Your task to perform on an android device: What is the news today? Image 0: 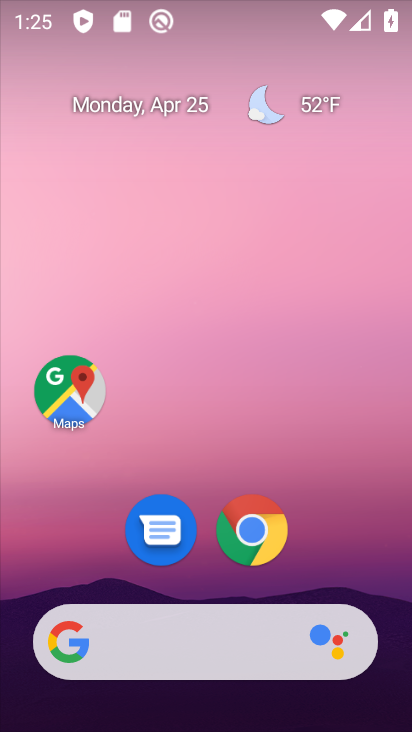
Step 0: drag from (393, 559) to (405, 154)
Your task to perform on an android device: What is the news today? Image 1: 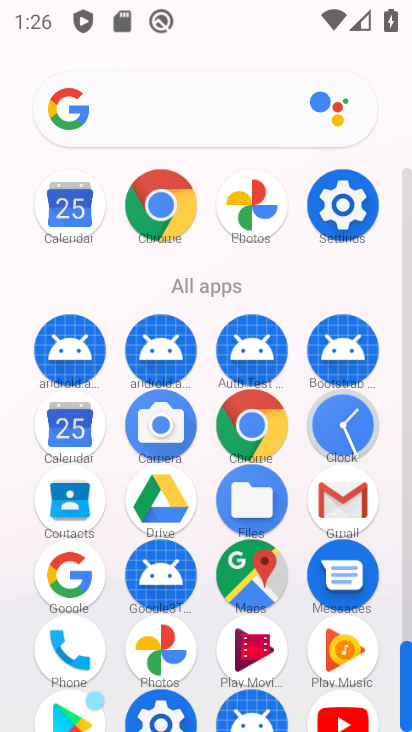
Step 1: click (186, 210)
Your task to perform on an android device: What is the news today? Image 2: 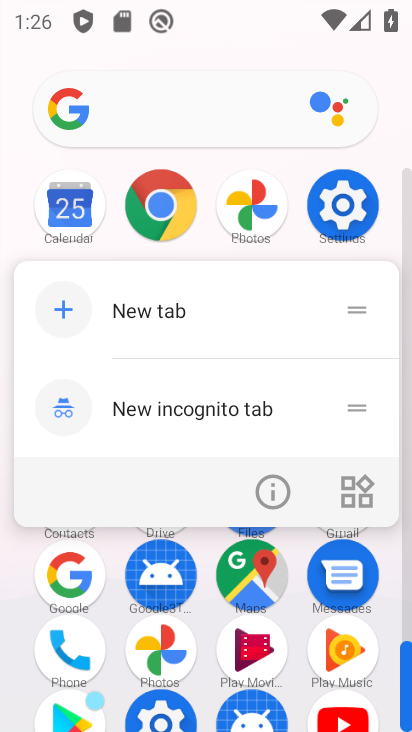
Step 2: click (174, 201)
Your task to perform on an android device: What is the news today? Image 3: 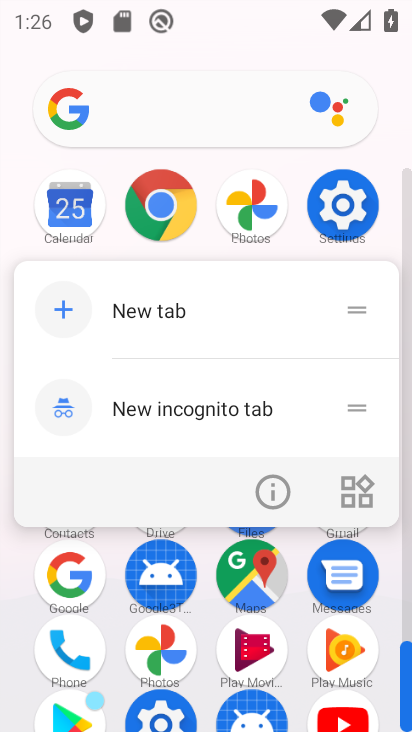
Step 3: click (160, 218)
Your task to perform on an android device: What is the news today? Image 4: 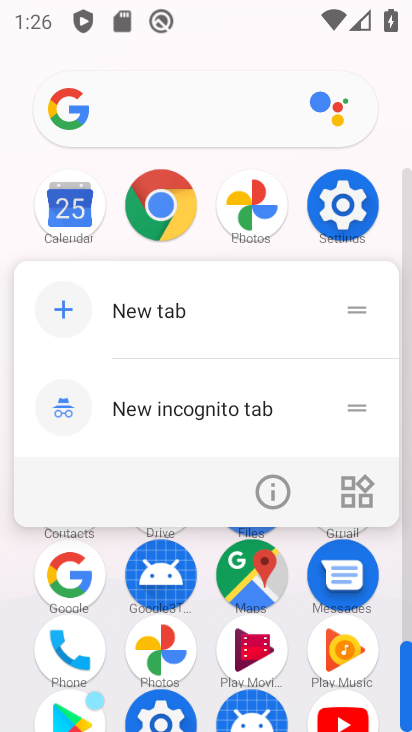
Step 4: click (164, 223)
Your task to perform on an android device: What is the news today? Image 5: 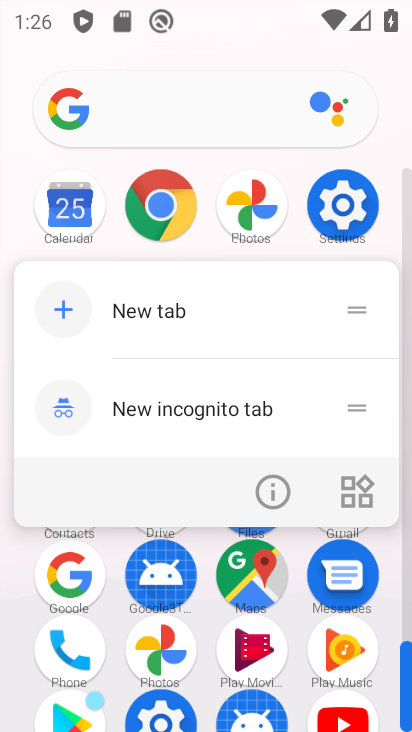
Step 5: click (187, 217)
Your task to perform on an android device: What is the news today? Image 6: 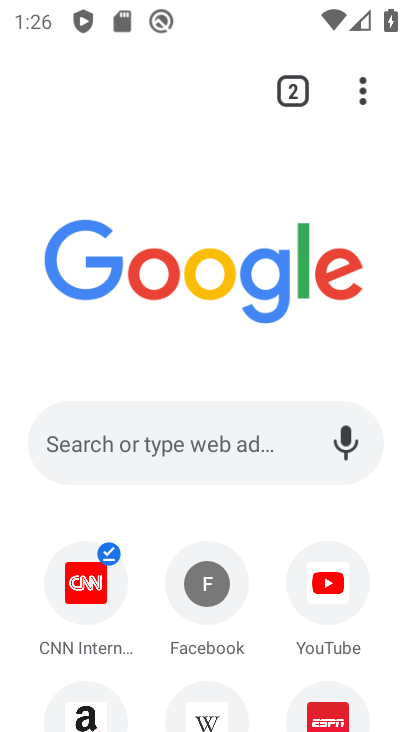
Step 6: click (209, 436)
Your task to perform on an android device: What is the news today? Image 7: 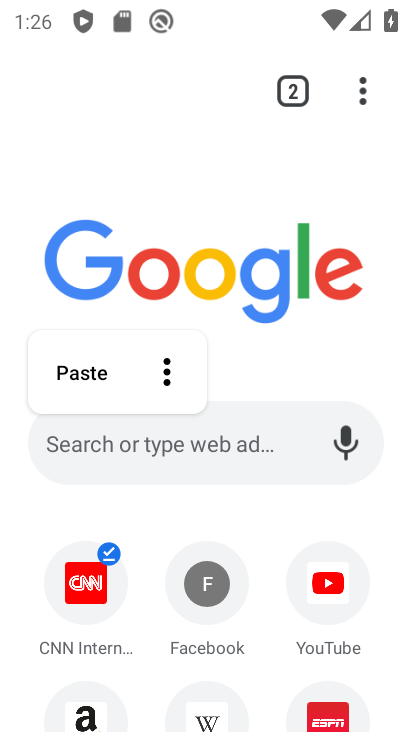
Step 7: type "the news today"
Your task to perform on an android device: What is the news today? Image 8: 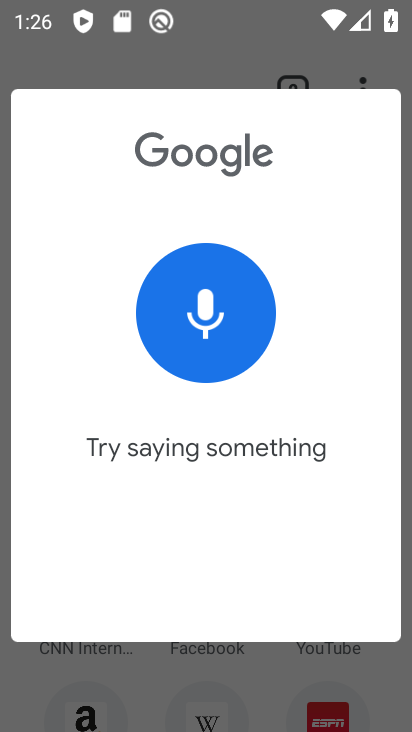
Step 8: click (368, 658)
Your task to perform on an android device: What is the news today? Image 9: 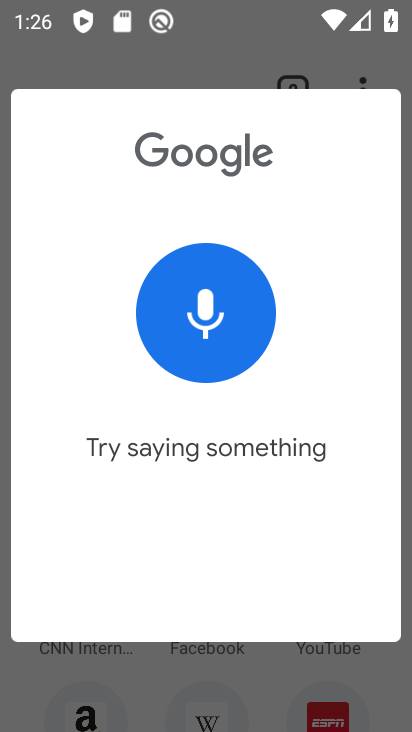
Step 9: press home button
Your task to perform on an android device: What is the news today? Image 10: 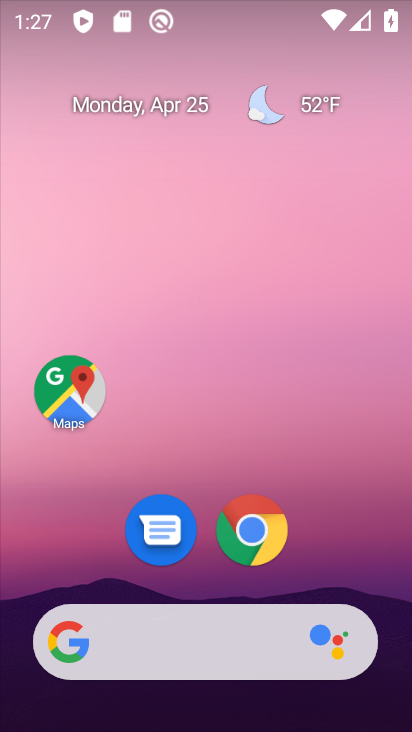
Step 10: drag from (369, 484) to (373, 69)
Your task to perform on an android device: What is the news today? Image 11: 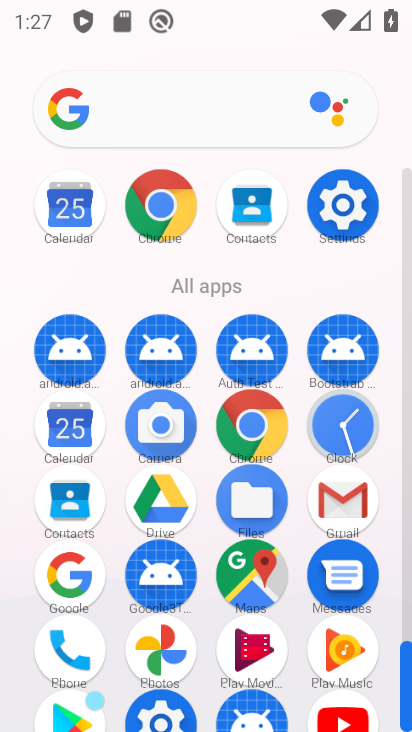
Step 11: click (168, 196)
Your task to perform on an android device: What is the news today? Image 12: 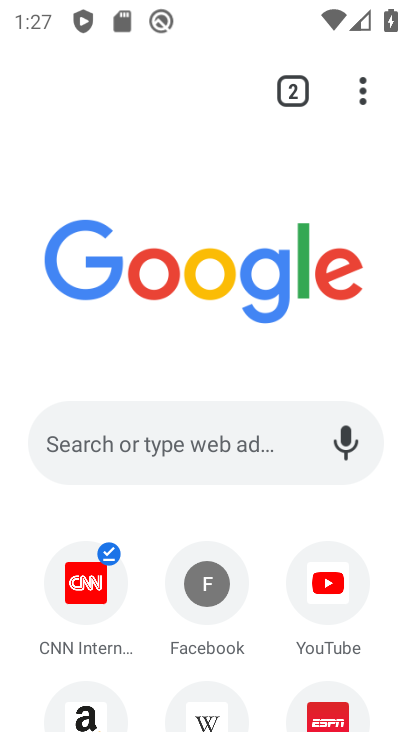
Step 12: click (199, 454)
Your task to perform on an android device: What is the news today? Image 13: 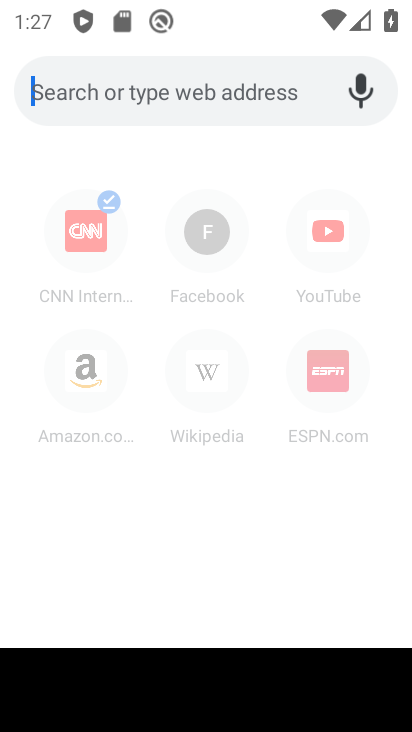
Step 13: type "news today"
Your task to perform on an android device: What is the news today? Image 14: 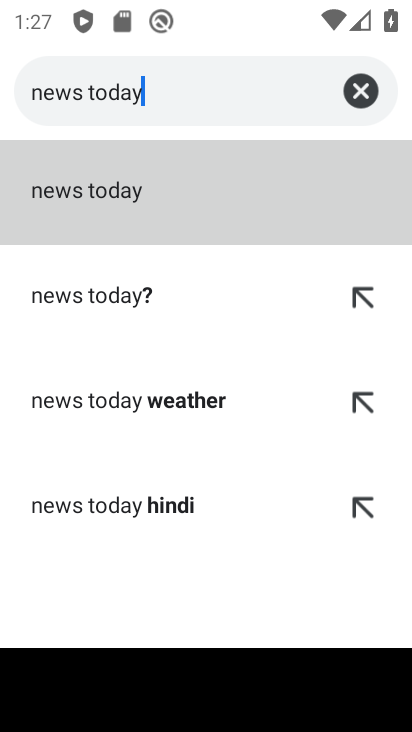
Step 14: click (156, 177)
Your task to perform on an android device: What is the news today? Image 15: 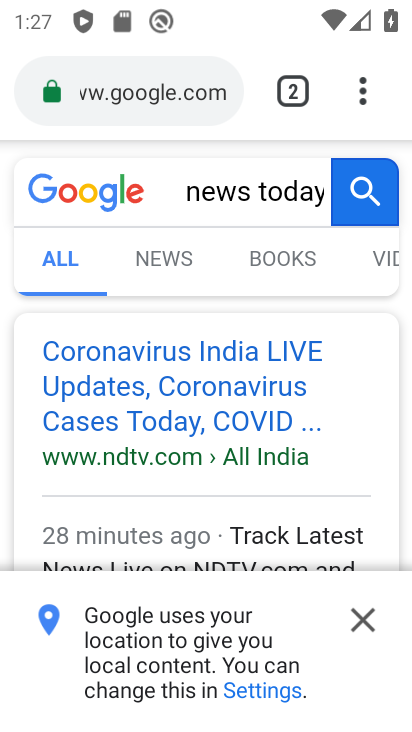
Step 15: click (90, 427)
Your task to perform on an android device: What is the news today? Image 16: 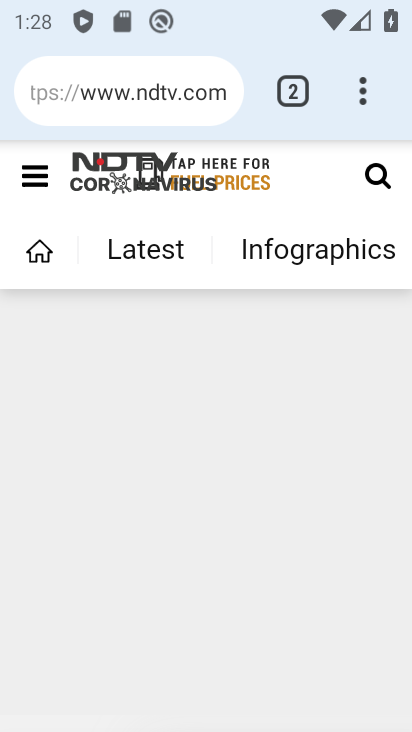
Step 16: task complete